Your task to perform on an android device: Open my contact list Image 0: 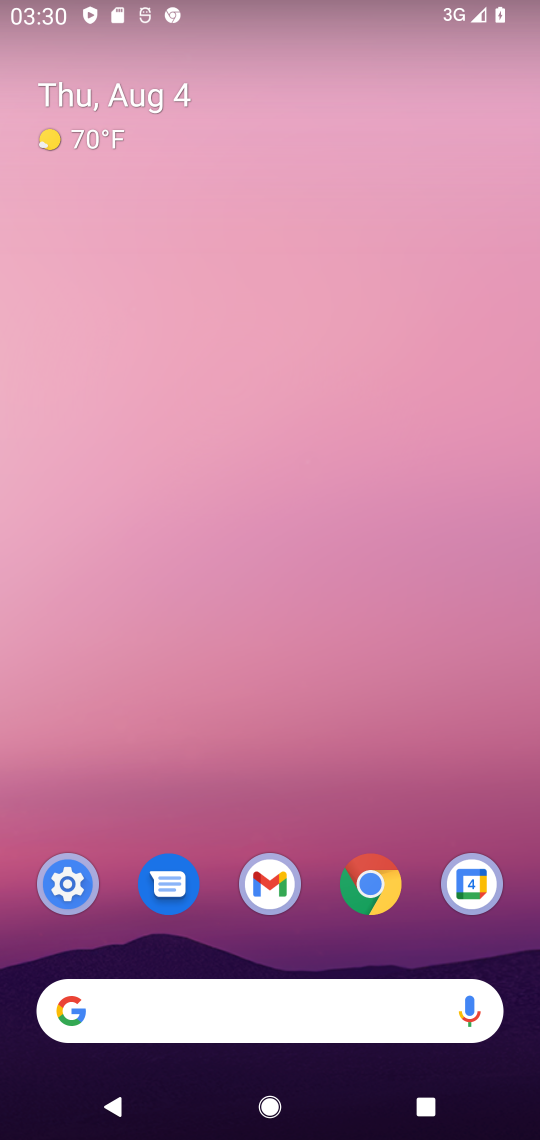
Step 0: press home button
Your task to perform on an android device: Open my contact list Image 1: 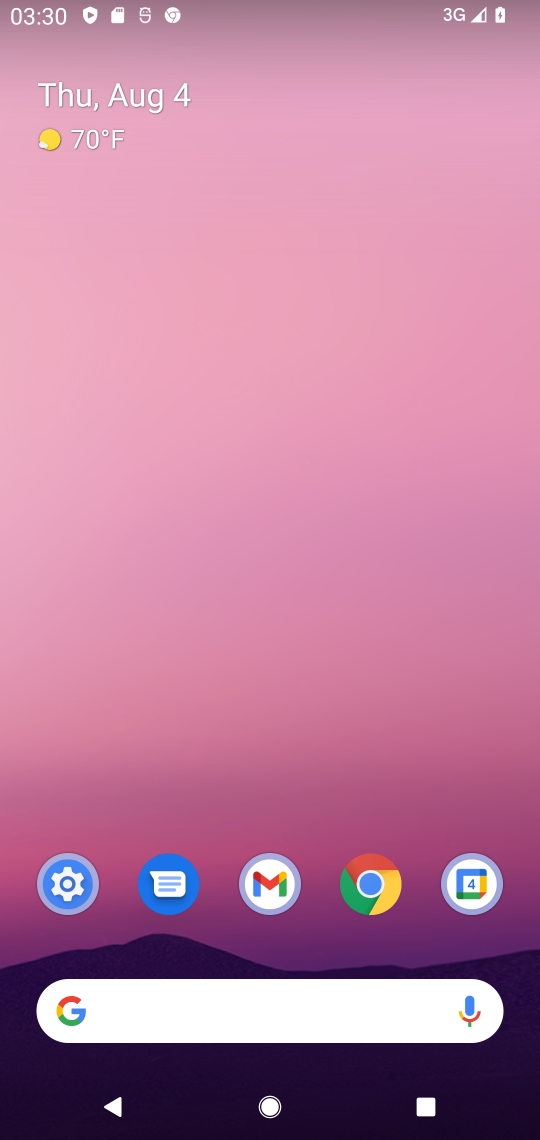
Step 1: drag from (319, 929) to (325, 360)
Your task to perform on an android device: Open my contact list Image 2: 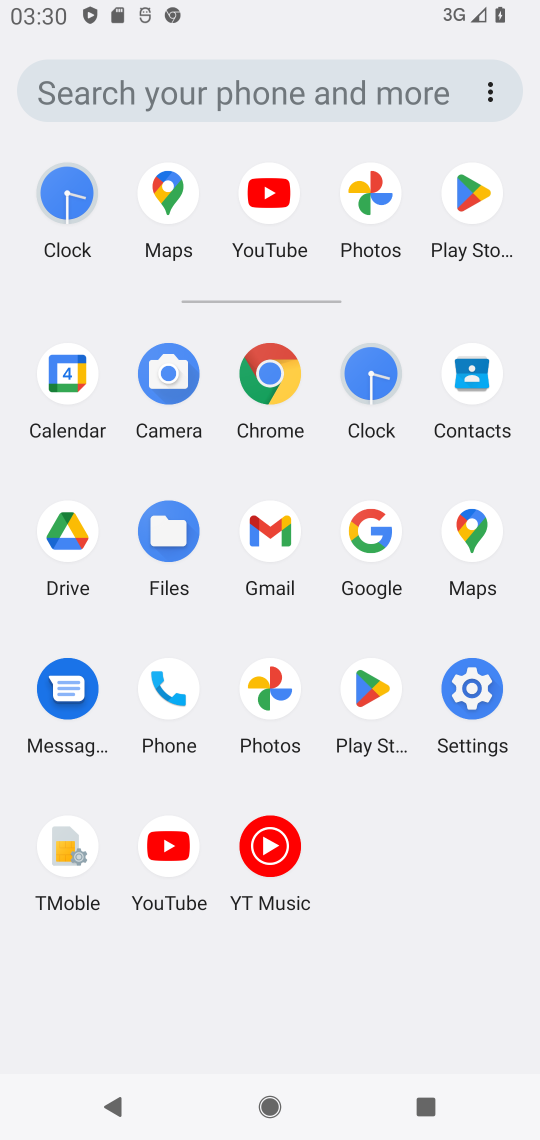
Step 2: click (474, 368)
Your task to perform on an android device: Open my contact list Image 3: 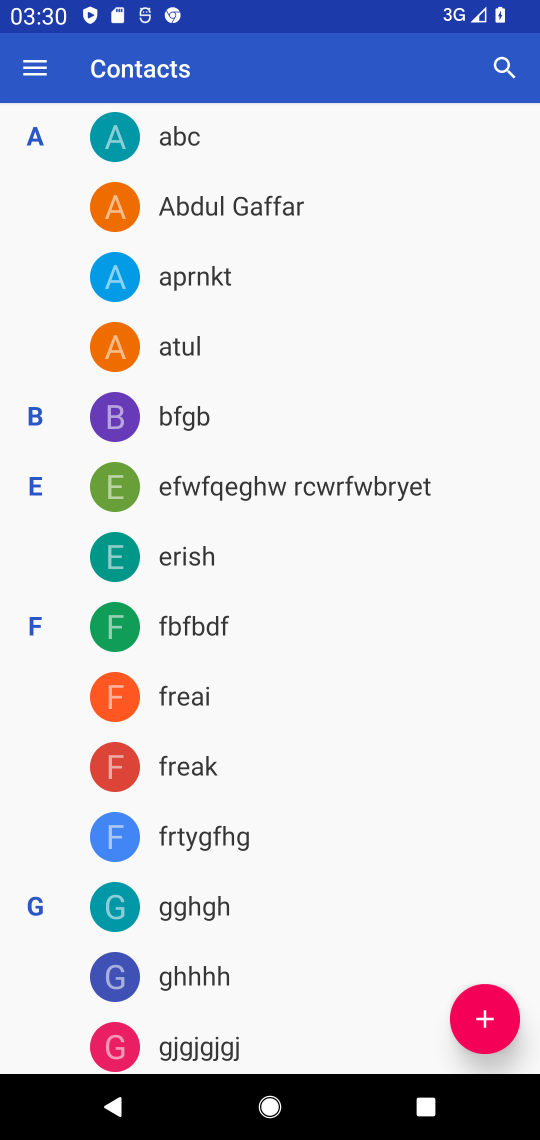
Step 3: task complete